Your task to perform on an android device: search for starred emails in the gmail app Image 0: 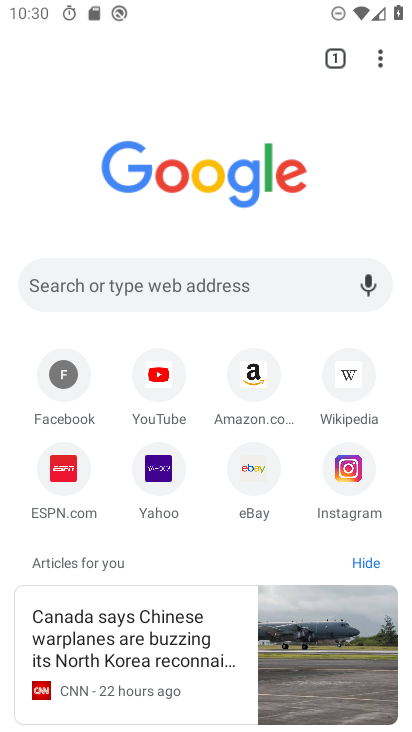
Step 0: press home button
Your task to perform on an android device: search for starred emails in the gmail app Image 1: 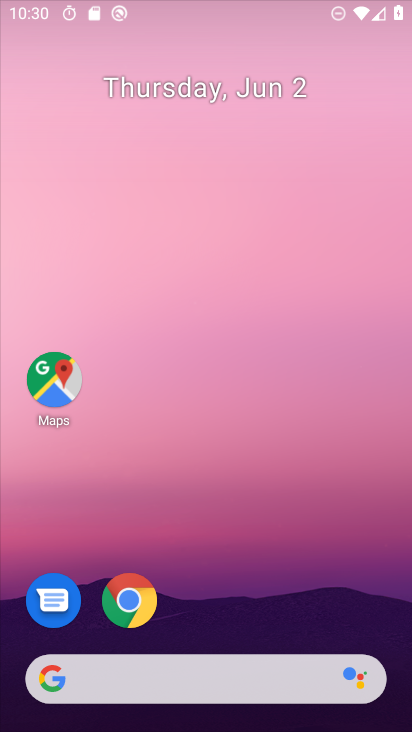
Step 1: drag from (209, 563) to (250, 52)
Your task to perform on an android device: search for starred emails in the gmail app Image 2: 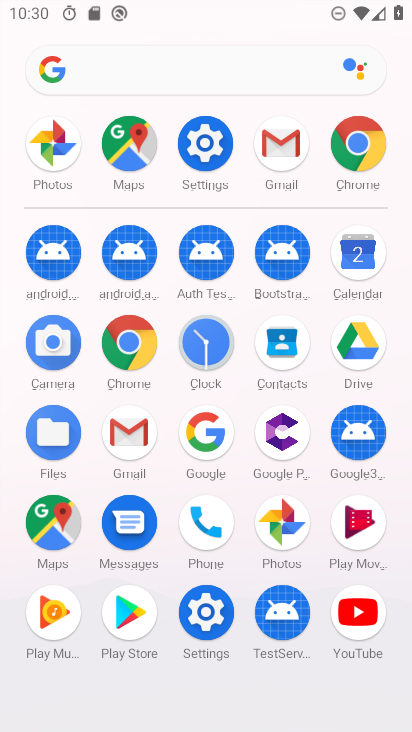
Step 2: click (142, 434)
Your task to perform on an android device: search for starred emails in the gmail app Image 3: 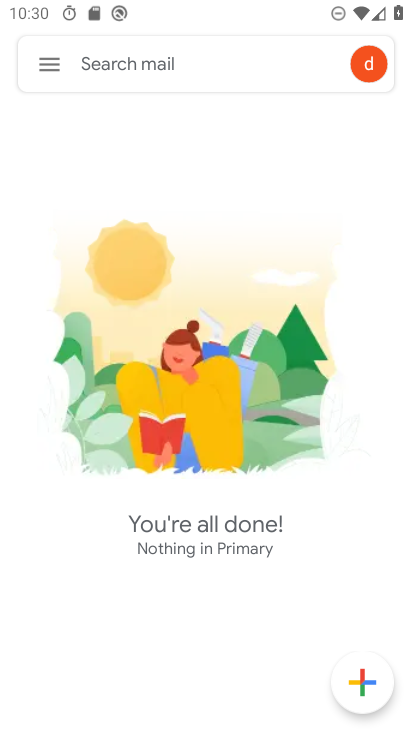
Step 3: task complete